Your task to perform on an android device: change text size in settings app Image 0: 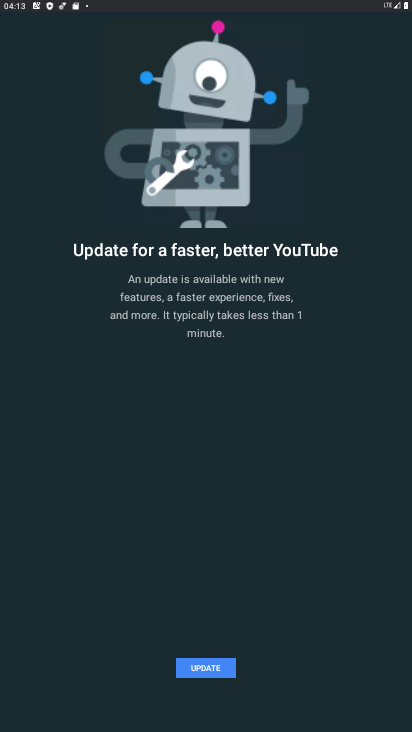
Step 0: press home button
Your task to perform on an android device: change text size in settings app Image 1: 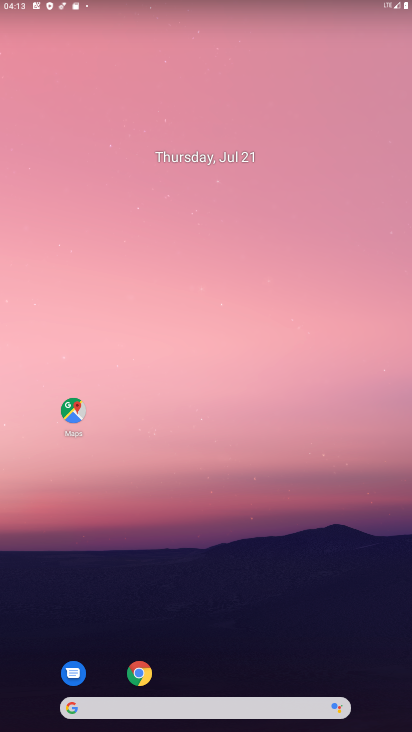
Step 1: drag from (269, 672) to (265, 69)
Your task to perform on an android device: change text size in settings app Image 2: 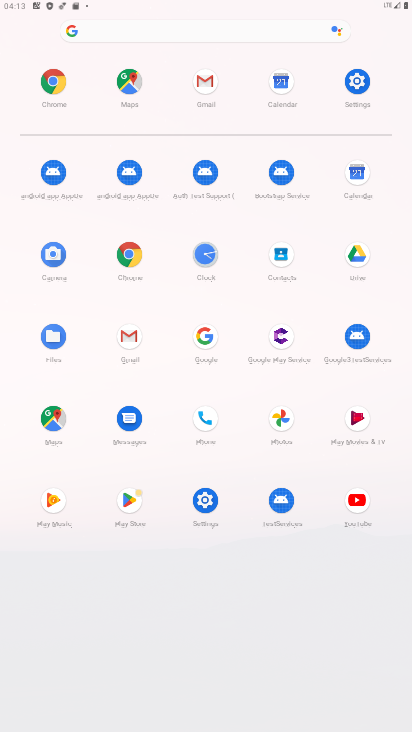
Step 2: click (356, 76)
Your task to perform on an android device: change text size in settings app Image 3: 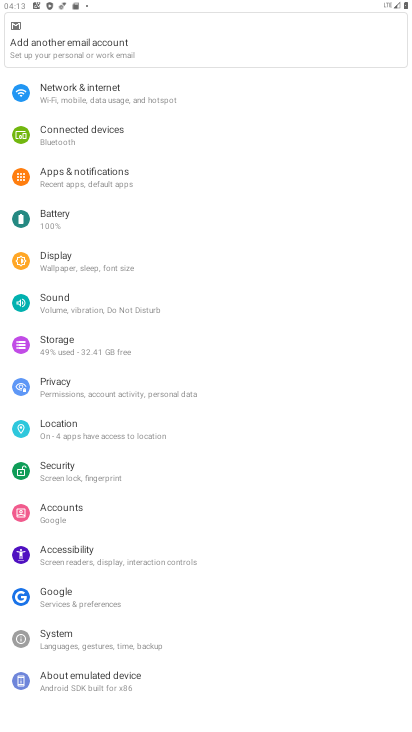
Step 3: click (52, 253)
Your task to perform on an android device: change text size in settings app Image 4: 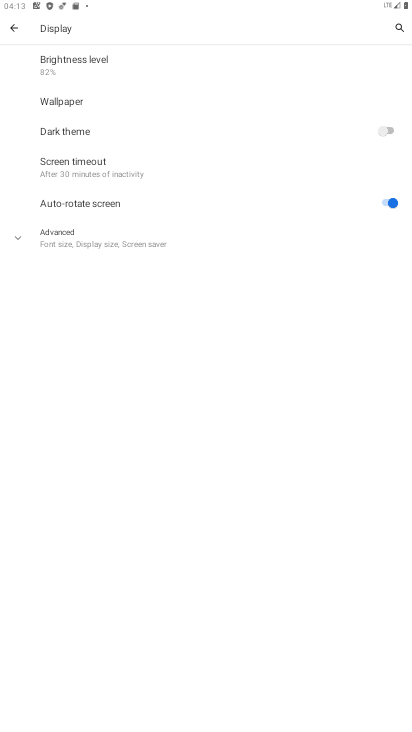
Step 4: click (88, 246)
Your task to perform on an android device: change text size in settings app Image 5: 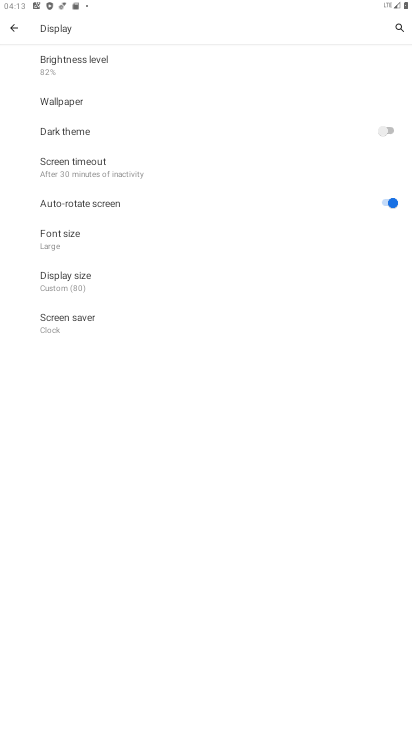
Step 5: click (80, 242)
Your task to perform on an android device: change text size in settings app Image 6: 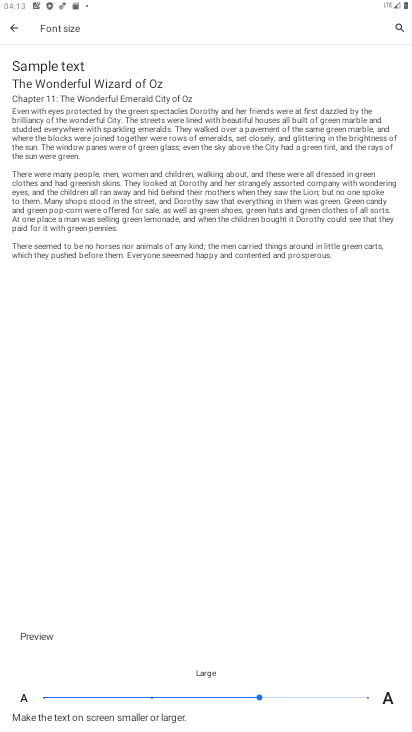
Step 6: click (82, 694)
Your task to perform on an android device: change text size in settings app Image 7: 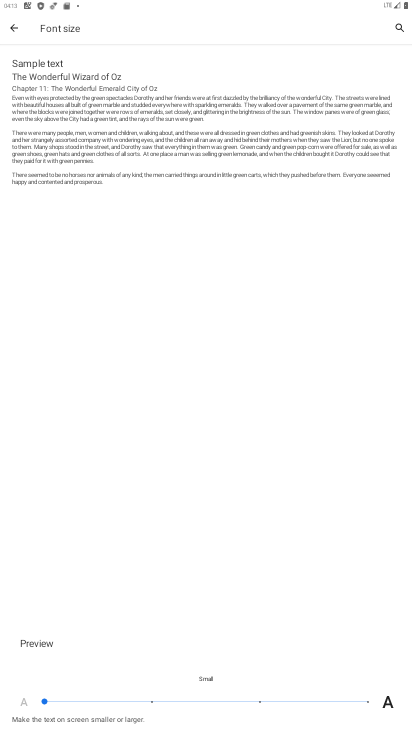
Step 7: task complete